Your task to perform on an android device: search for starred emails in the gmail app Image 0: 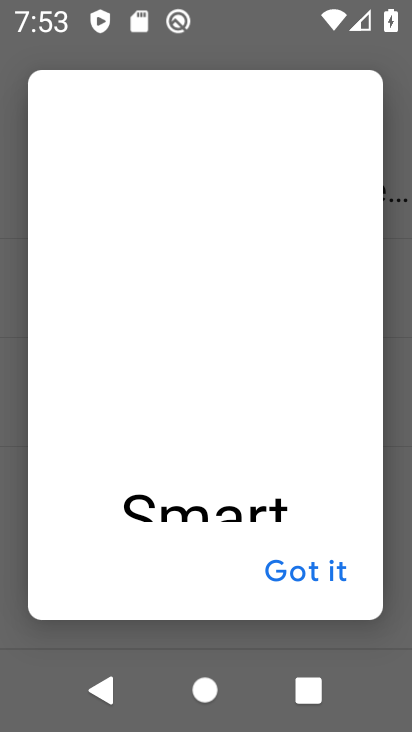
Step 0: press home button
Your task to perform on an android device: search for starred emails in the gmail app Image 1: 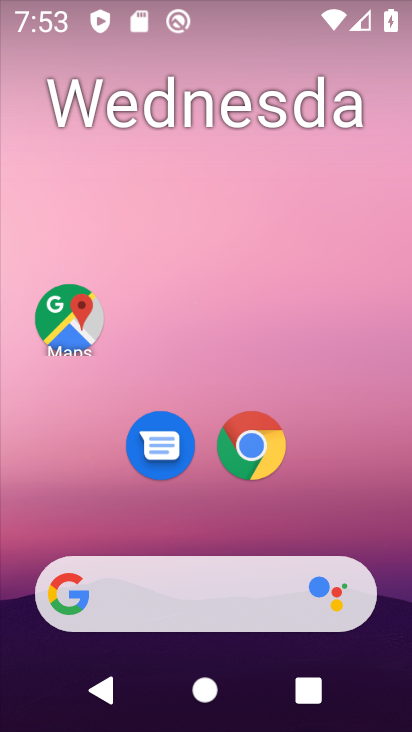
Step 1: drag from (210, 551) to (197, 54)
Your task to perform on an android device: search for starred emails in the gmail app Image 2: 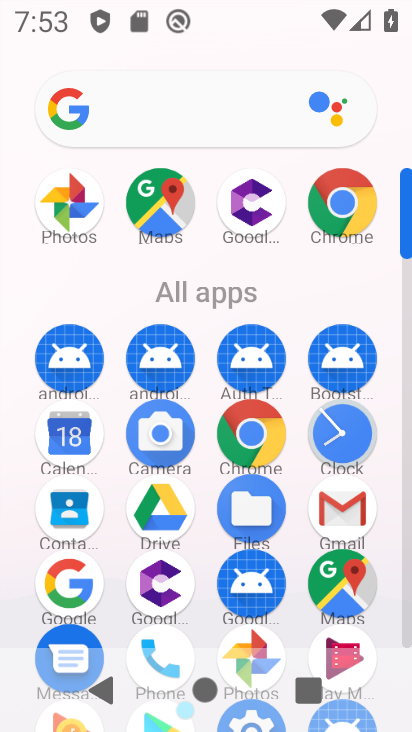
Step 2: click (352, 529)
Your task to perform on an android device: search for starred emails in the gmail app Image 3: 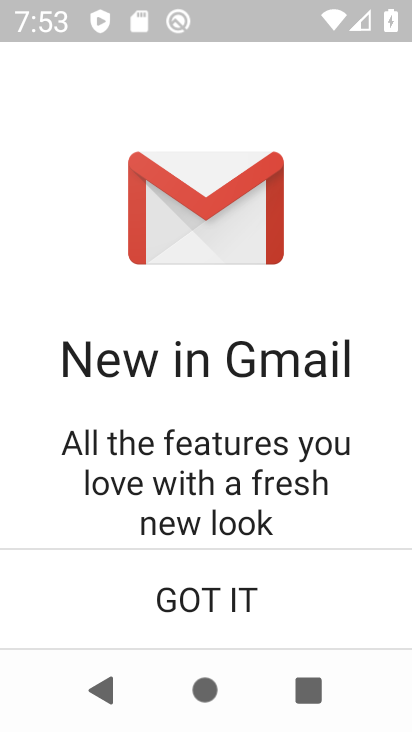
Step 3: click (218, 607)
Your task to perform on an android device: search for starred emails in the gmail app Image 4: 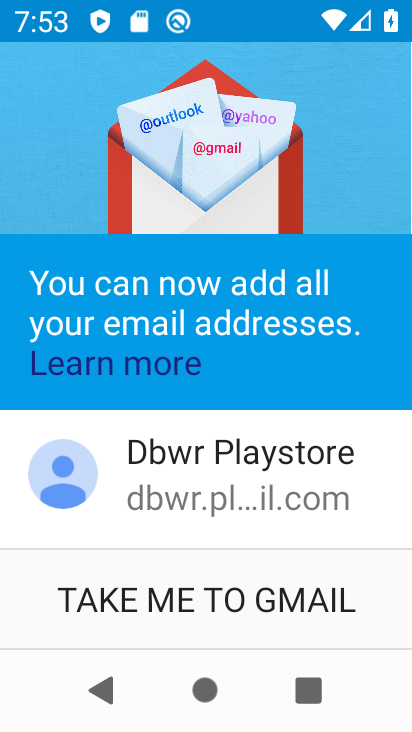
Step 4: click (219, 614)
Your task to perform on an android device: search for starred emails in the gmail app Image 5: 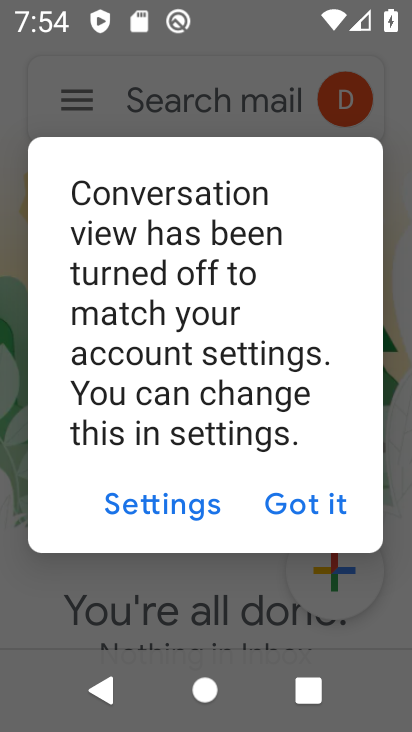
Step 5: click (295, 506)
Your task to perform on an android device: search for starred emails in the gmail app Image 6: 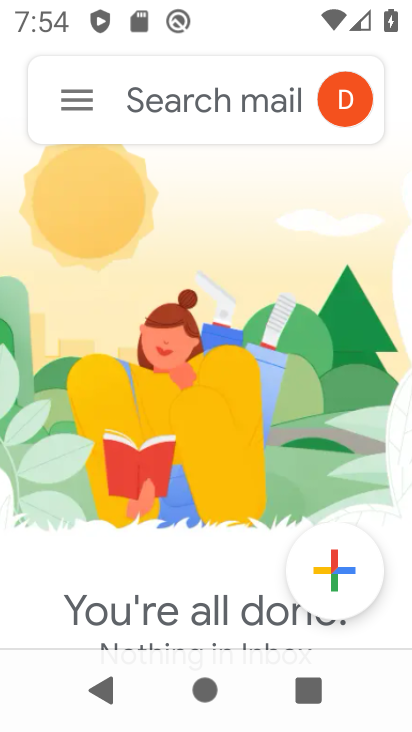
Step 6: click (60, 105)
Your task to perform on an android device: search for starred emails in the gmail app Image 7: 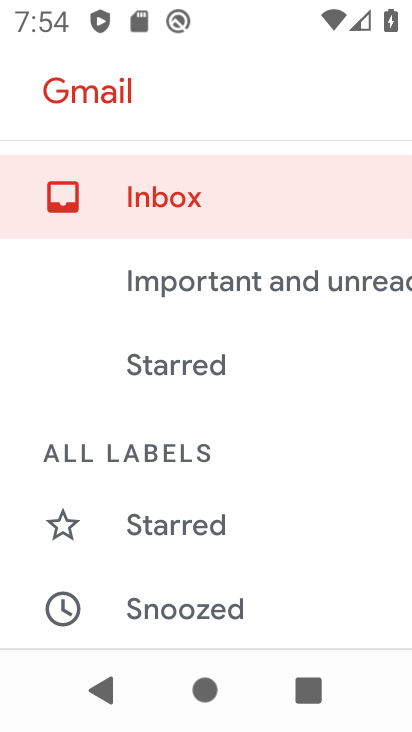
Step 7: drag from (212, 496) to (203, 93)
Your task to perform on an android device: search for starred emails in the gmail app Image 8: 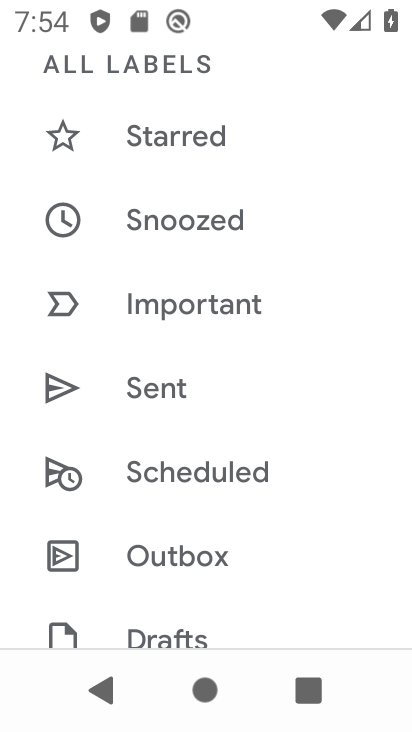
Step 8: click (166, 145)
Your task to perform on an android device: search for starred emails in the gmail app Image 9: 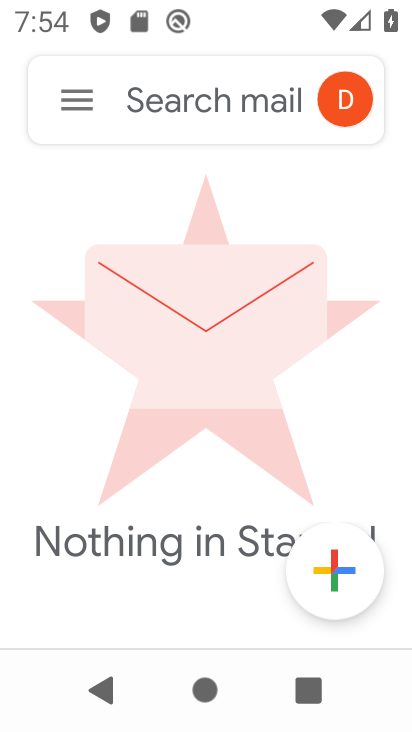
Step 9: task complete